Your task to perform on an android device: Search for lenovo thinkpad on bestbuy.com, select the first entry, and add it to the cart. Image 0: 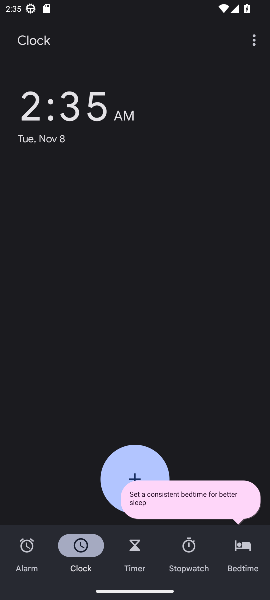
Step 0: press home button
Your task to perform on an android device: Search for lenovo thinkpad on bestbuy.com, select the first entry, and add it to the cart. Image 1: 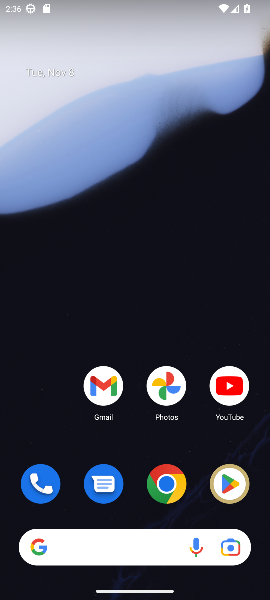
Step 1: click (150, 483)
Your task to perform on an android device: Search for lenovo thinkpad on bestbuy.com, select the first entry, and add it to the cart. Image 2: 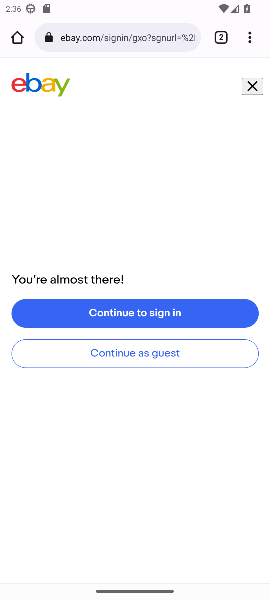
Step 2: click (80, 38)
Your task to perform on an android device: Search for lenovo thinkpad on bestbuy.com, select the first entry, and add it to the cart. Image 3: 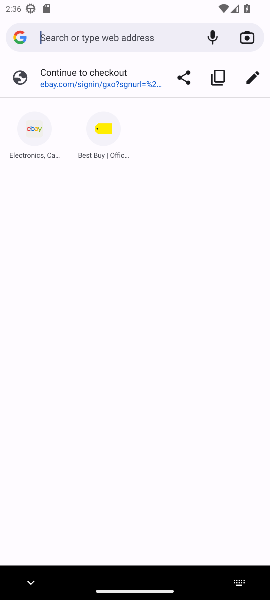
Step 3: type "bestbuy"
Your task to perform on an android device: Search for lenovo thinkpad on bestbuy.com, select the first entry, and add it to the cart. Image 4: 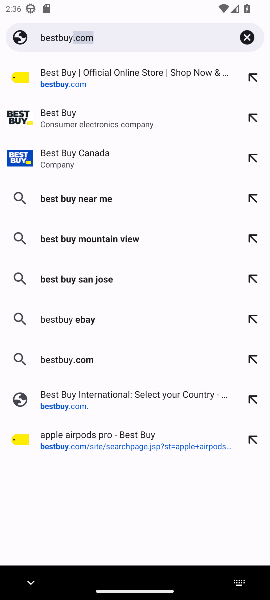
Step 4: click (72, 109)
Your task to perform on an android device: Search for lenovo thinkpad on bestbuy.com, select the first entry, and add it to the cart. Image 5: 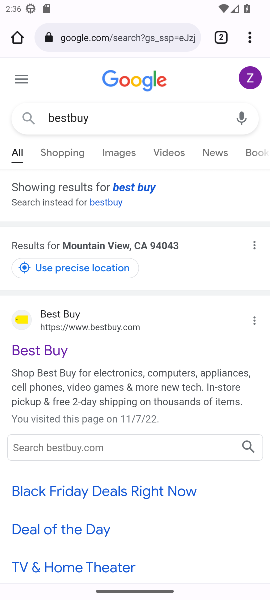
Step 5: click (40, 350)
Your task to perform on an android device: Search for lenovo thinkpad on bestbuy.com, select the first entry, and add it to the cart. Image 6: 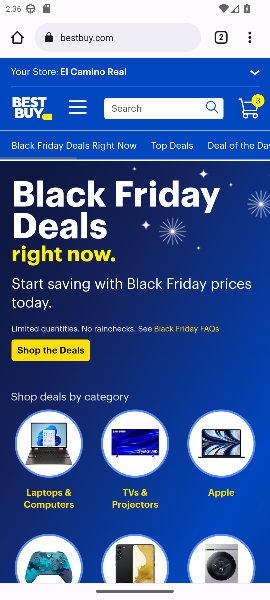
Step 6: click (138, 106)
Your task to perform on an android device: Search for lenovo thinkpad on bestbuy.com, select the first entry, and add it to the cart. Image 7: 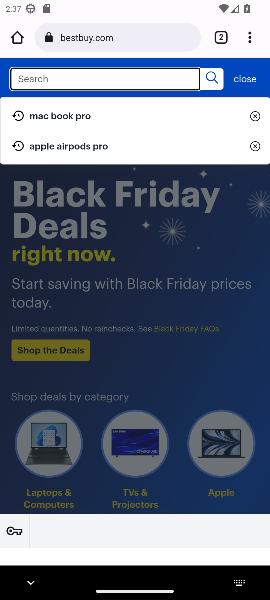
Step 7: type " lenovo thinkpad "
Your task to perform on an android device: Search for lenovo thinkpad on bestbuy.com, select the first entry, and add it to the cart. Image 8: 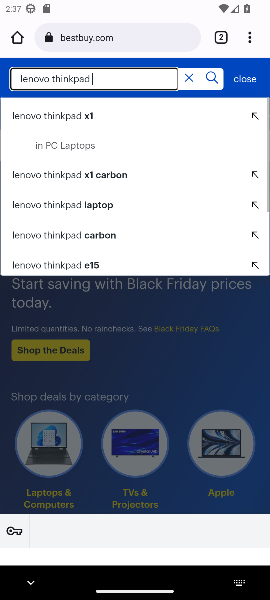
Step 8: click (209, 75)
Your task to perform on an android device: Search for lenovo thinkpad on bestbuy.com, select the first entry, and add it to the cart. Image 9: 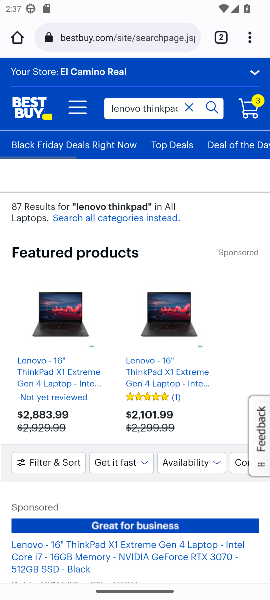
Step 9: click (62, 318)
Your task to perform on an android device: Search for lenovo thinkpad on bestbuy.com, select the first entry, and add it to the cart. Image 10: 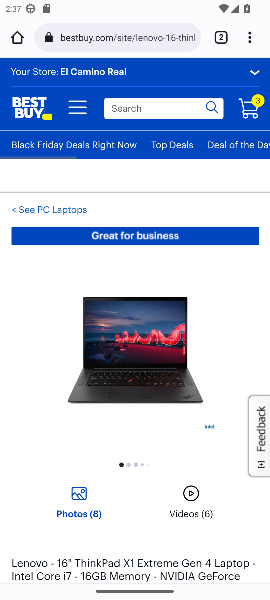
Step 10: drag from (122, 506) to (179, 172)
Your task to perform on an android device: Search for lenovo thinkpad on bestbuy.com, select the first entry, and add it to the cart. Image 11: 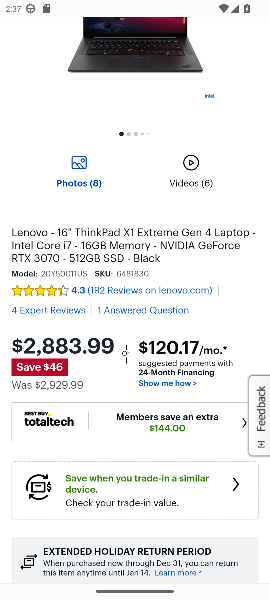
Step 11: drag from (98, 448) to (123, 180)
Your task to perform on an android device: Search for lenovo thinkpad on bestbuy.com, select the first entry, and add it to the cart. Image 12: 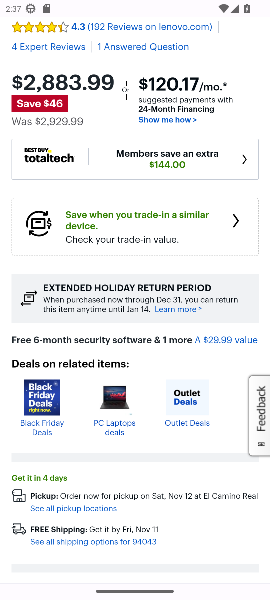
Step 12: drag from (93, 475) to (136, 151)
Your task to perform on an android device: Search for lenovo thinkpad on bestbuy.com, select the first entry, and add it to the cart. Image 13: 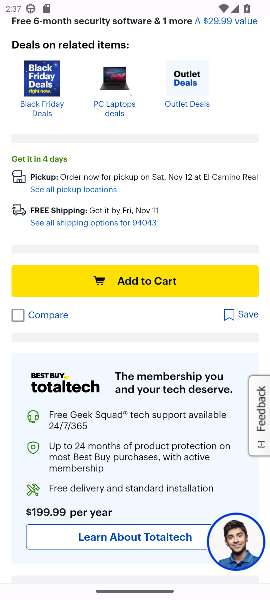
Step 13: click (139, 543)
Your task to perform on an android device: Search for lenovo thinkpad on bestbuy.com, select the first entry, and add it to the cart. Image 14: 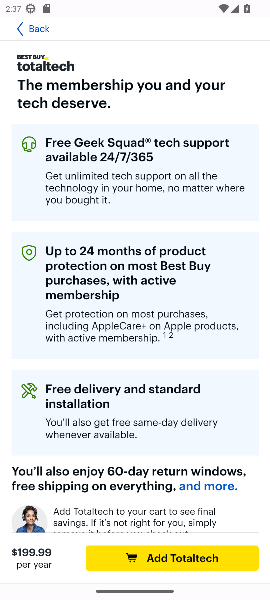
Step 14: click (30, 28)
Your task to perform on an android device: Search for lenovo thinkpad on bestbuy.com, select the first entry, and add it to the cart. Image 15: 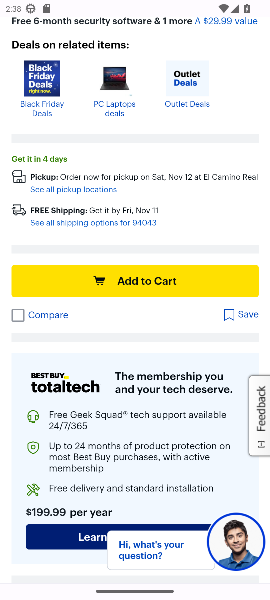
Step 15: click (102, 280)
Your task to perform on an android device: Search for lenovo thinkpad on bestbuy.com, select the first entry, and add it to the cart. Image 16: 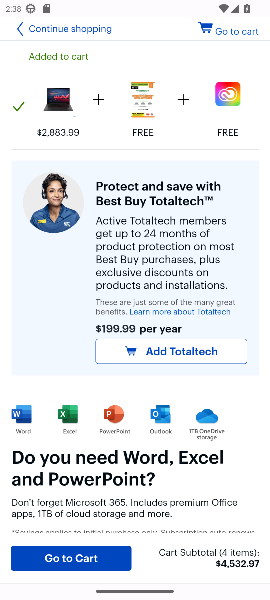
Step 16: task complete